Your task to perform on an android device: check out phone information Image 0: 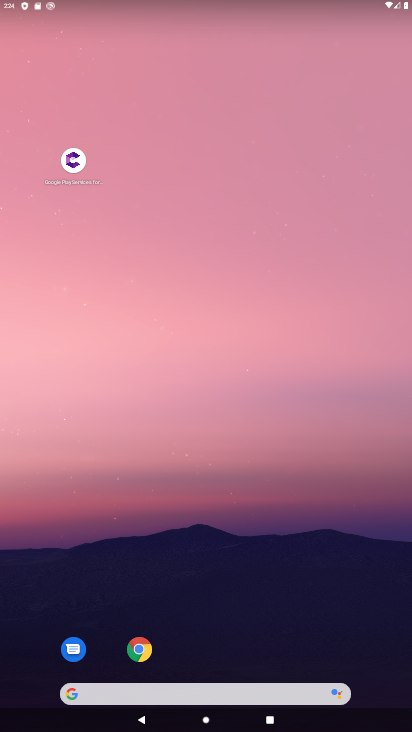
Step 0: drag from (294, 631) to (242, 227)
Your task to perform on an android device: check out phone information Image 1: 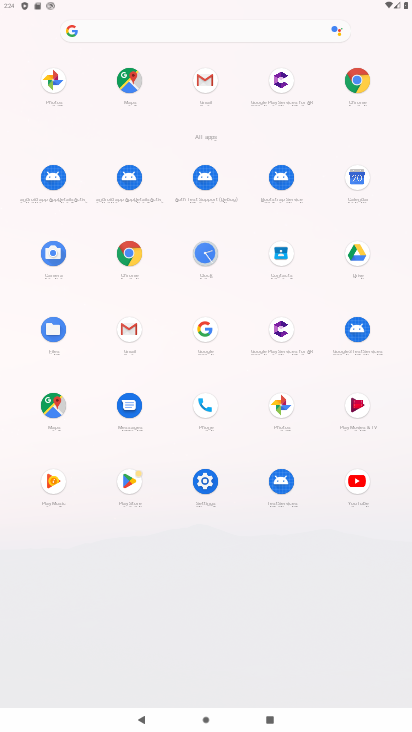
Step 1: click (207, 481)
Your task to perform on an android device: check out phone information Image 2: 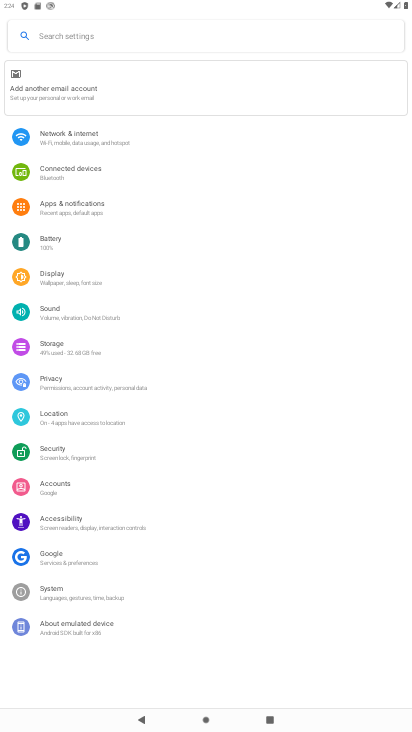
Step 2: click (150, 630)
Your task to perform on an android device: check out phone information Image 3: 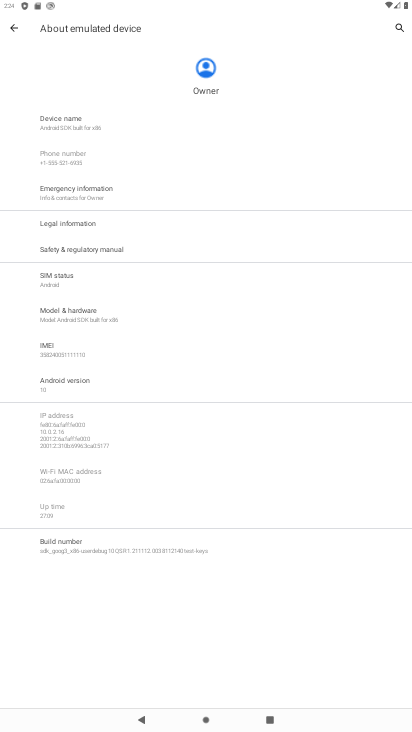
Step 3: task complete